Your task to perform on an android device: check android version Image 0: 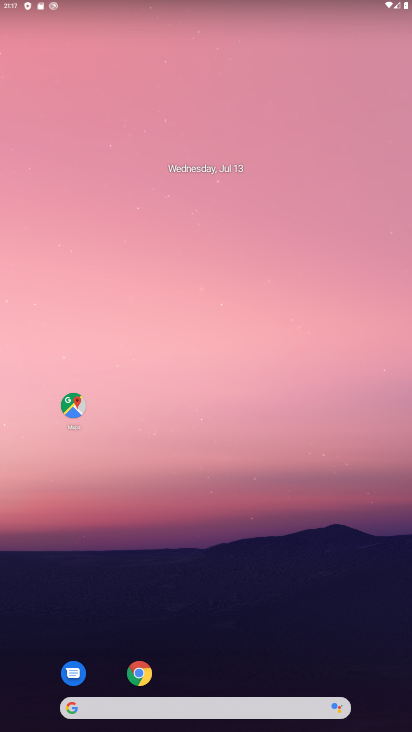
Step 0: drag from (206, 648) to (180, 198)
Your task to perform on an android device: check android version Image 1: 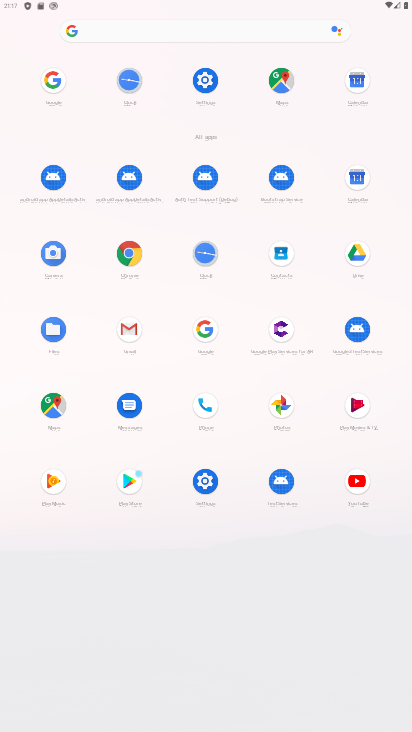
Step 1: click (213, 87)
Your task to perform on an android device: check android version Image 2: 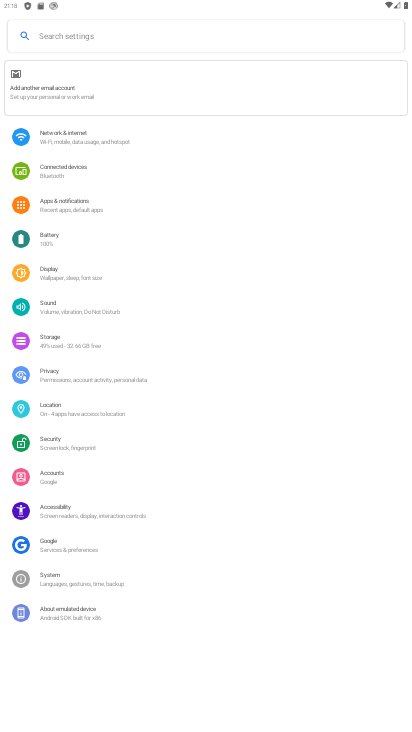
Step 2: click (81, 618)
Your task to perform on an android device: check android version Image 3: 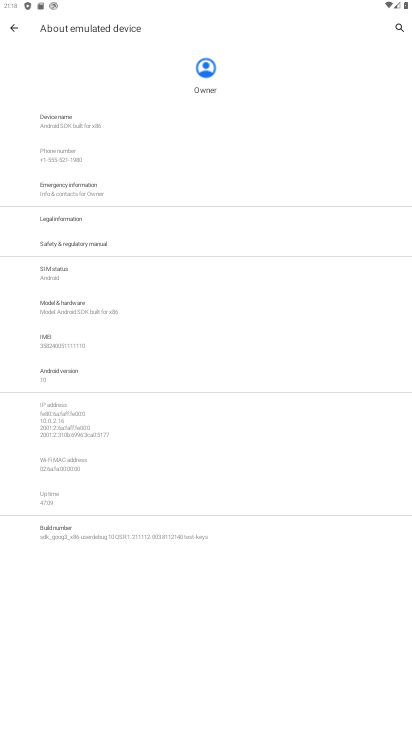
Step 3: drag from (162, 416) to (165, 183)
Your task to perform on an android device: check android version Image 4: 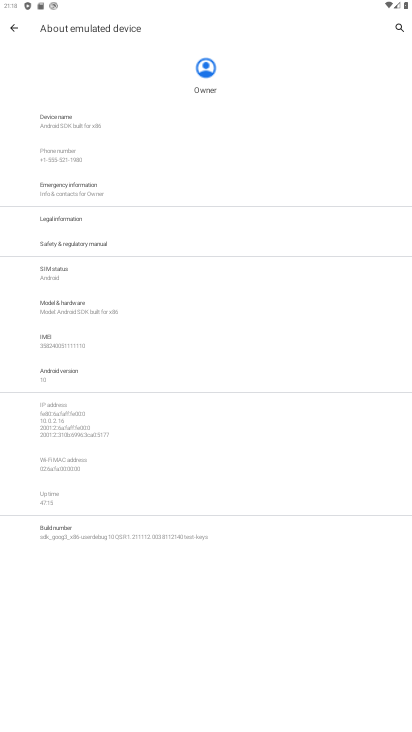
Step 4: click (79, 388)
Your task to perform on an android device: check android version Image 5: 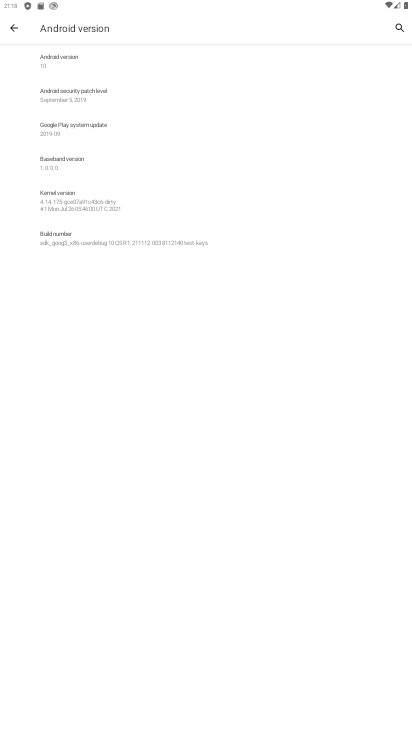
Step 5: task complete